Your task to perform on an android device: make emails show in primary in the gmail app Image 0: 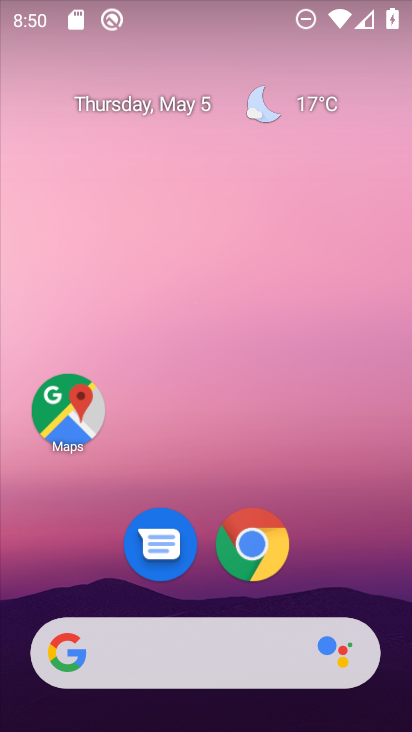
Step 0: drag from (392, 636) to (254, 153)
Your task to perform on an android device: make emails show in primary in the gmail app Image 1: 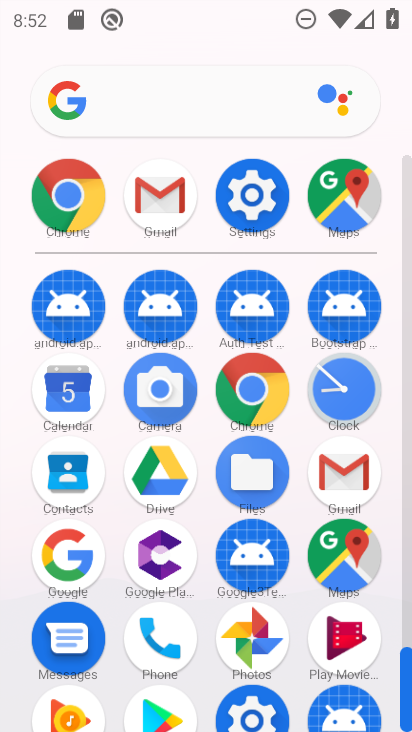
Step 1: click (350, 466)
Your task to perform on an android device: make emails show in primary in the gmail app Image 2: 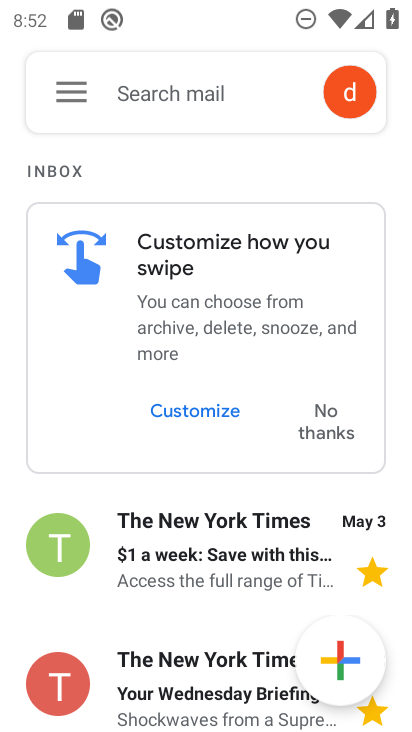
Step 2: task complete